Your task to perform on an android device: Open battery settings Image 0: 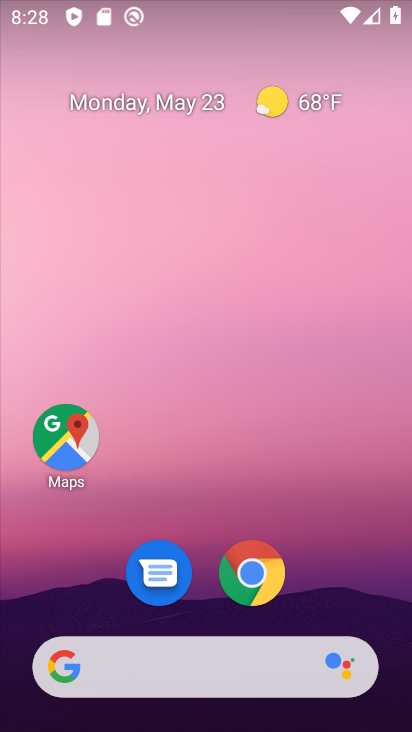
Step 0: drag from (208, 602) to (196, 71)
Your task to perform on an android device: Open battery settings Image 1: 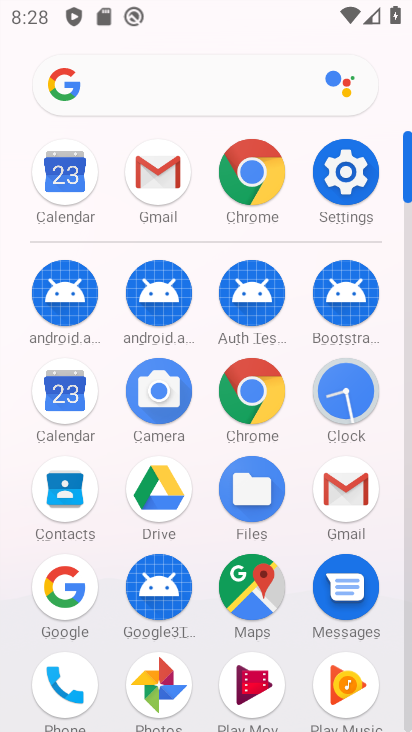
Step 1: click (344, 169)
Your task to perform on an android device: Open battery settings Image 2: 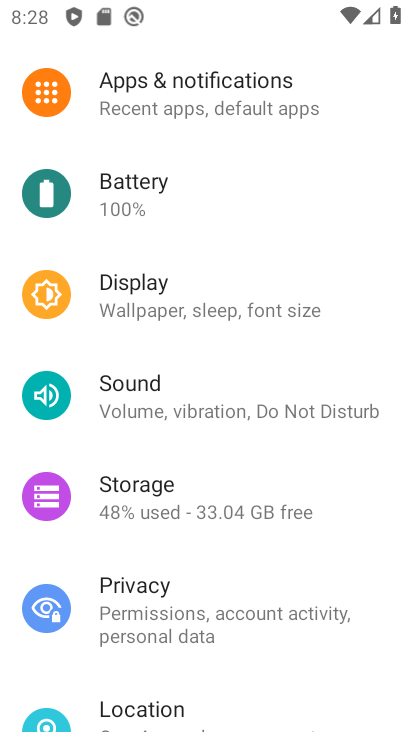
Step 2: click (168, 197)
Your task to perform on an android device: Open battery settings Image 3: 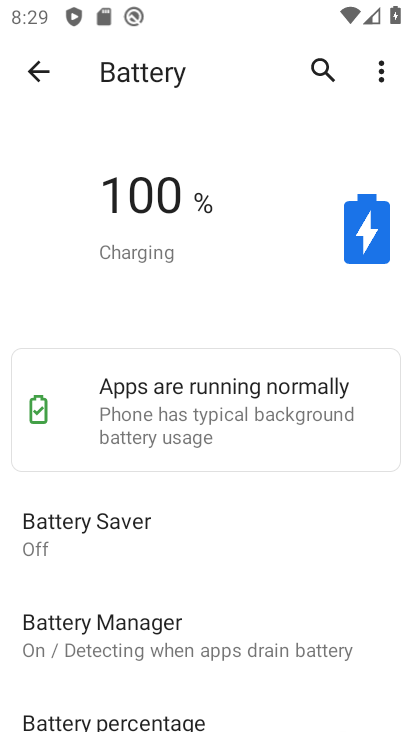
Step 3: task complete